Your task to perform on an android device: check android version Image 0: 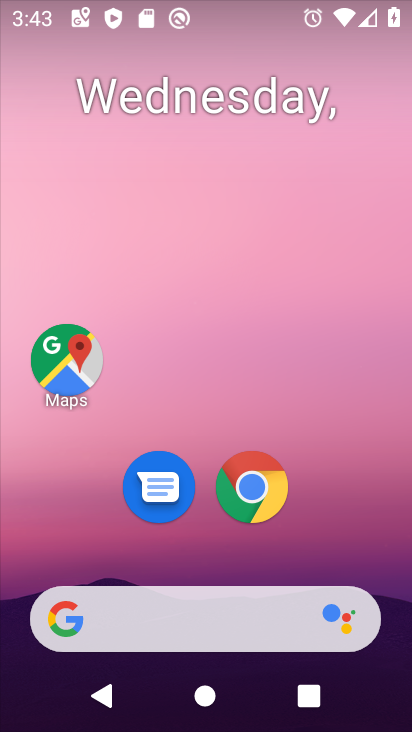
Step 0: drag from (377, 551) to (364, 180)
Your task to perform on an android device: check android version Image 1: 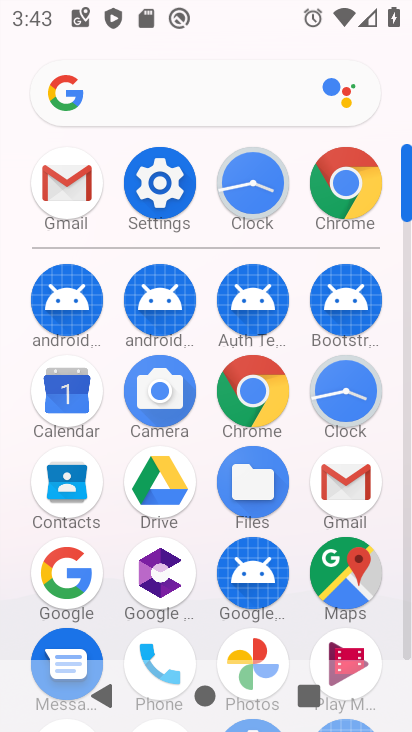
Step 1: click (165, 203)
Your task to perform on an android device: check android version Image 2: 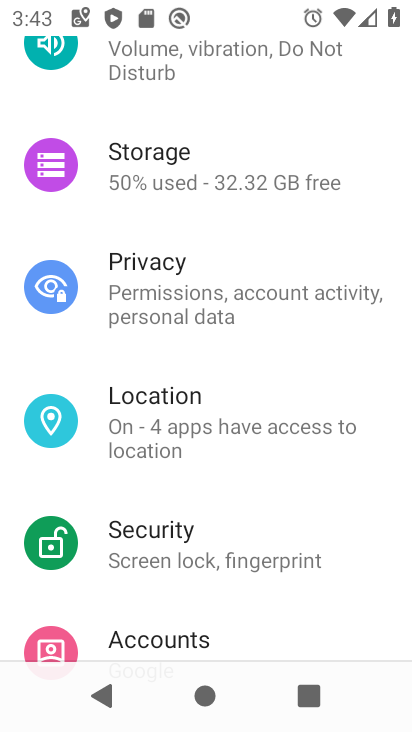
Step 2: drag from (356, 208) to (365, 280)
Your task to perform on an android device: check android version Image 3: 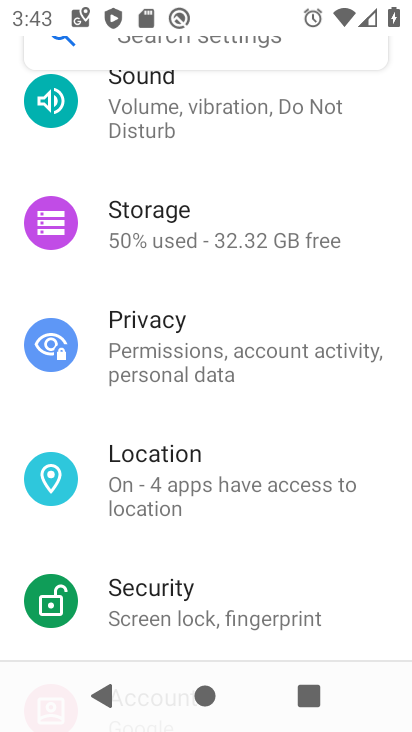
Step 3: drag from (363, 185) to (368, 284)
Your task to perform on an android device: check android version Image 4: 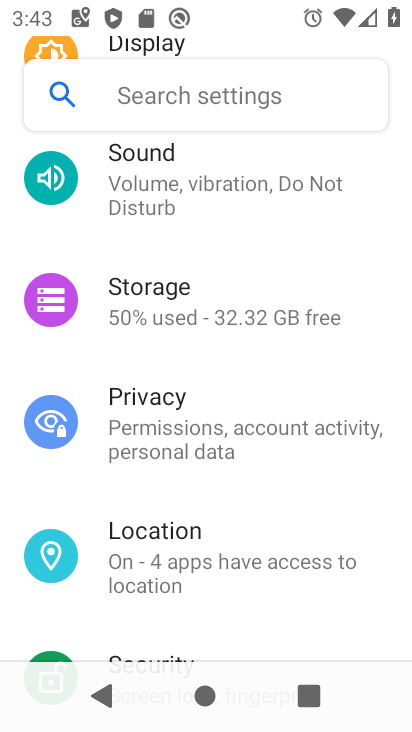
Step 4: drag from (372, 179) to (367, 268)
Your task to perform on an android device: check android version Image 5: 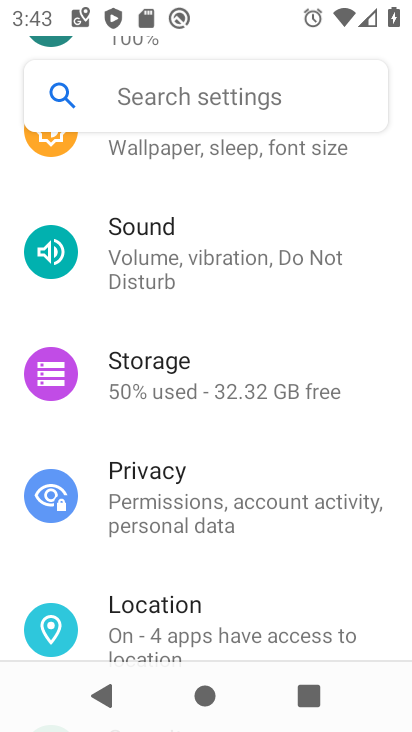
Step 5: drag from (375, 182) to (373, 300)
Your task to perform on an android device: check android version Image 6: 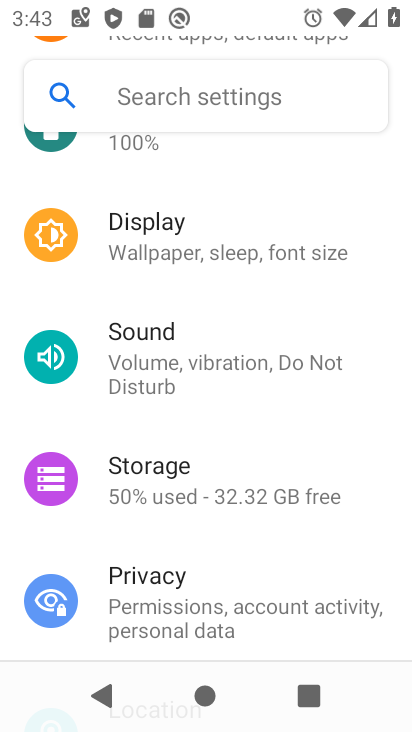
Step 6: drag from (363, 188) to (361, 301)
Your task to perform on an android device: check android version Image 7: 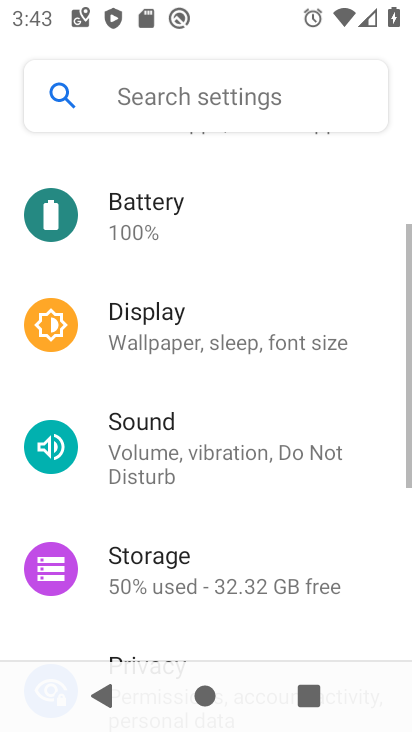
Step 7: drag from (349, 179) to (357, 311)
Your task to perform on an android device: check android version Image 8: 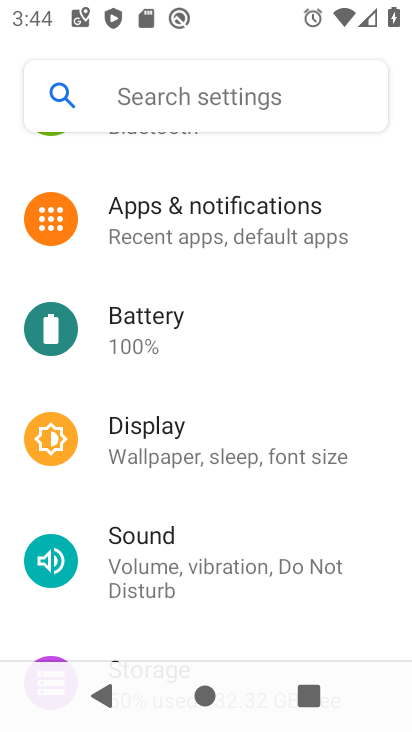
Step 8: drag from (357, 181) to (370, 325)
Your task to perform on an android device: check android version Image 9: 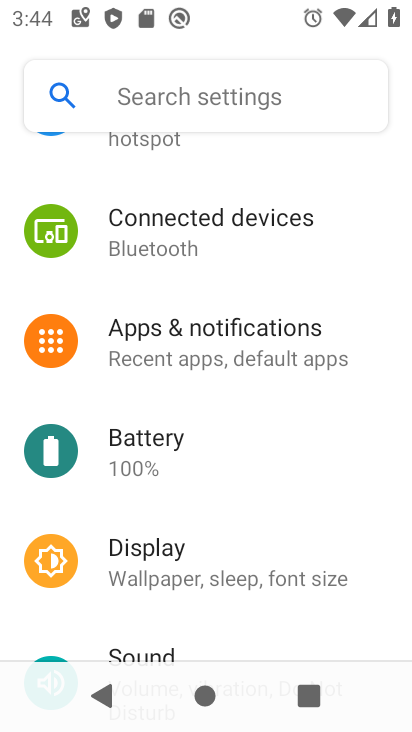
Step 9: drag from (348, 205) to (348, 316)
Your task to perform on an android device: check android version Image 10: 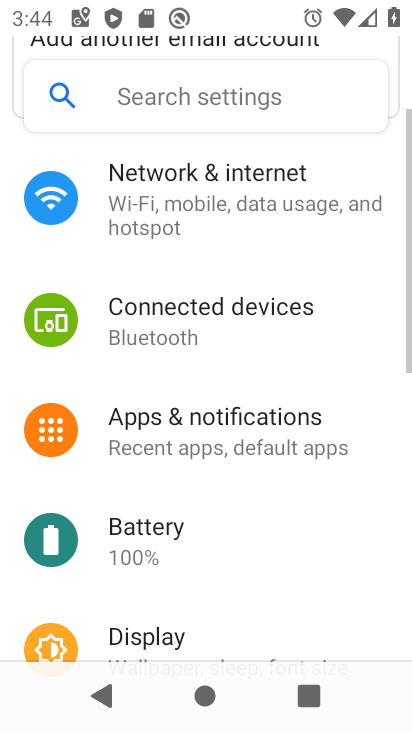
Step 10: drag from (347, 320) to (351, 184)
Your task to perform on an android device: check android version Image 11: 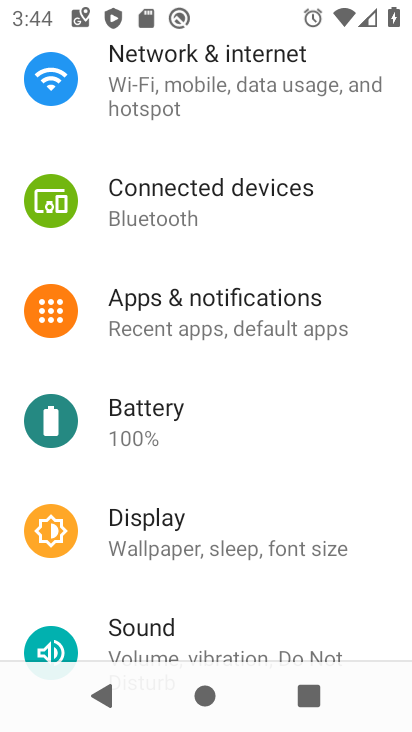
Step 11: drag from (352, 304) to (338, 168)
Your task to perform on an android device: check android version Image 12: 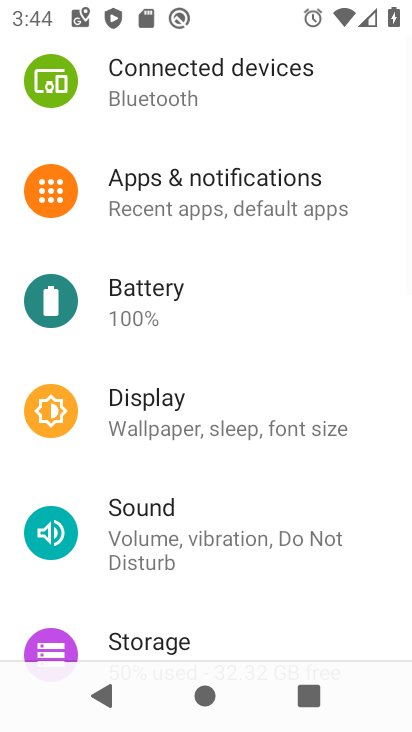
Step 12: drag from (329, 328) to (329, 238)
Your task to perform on an android device: check android version Image 13: 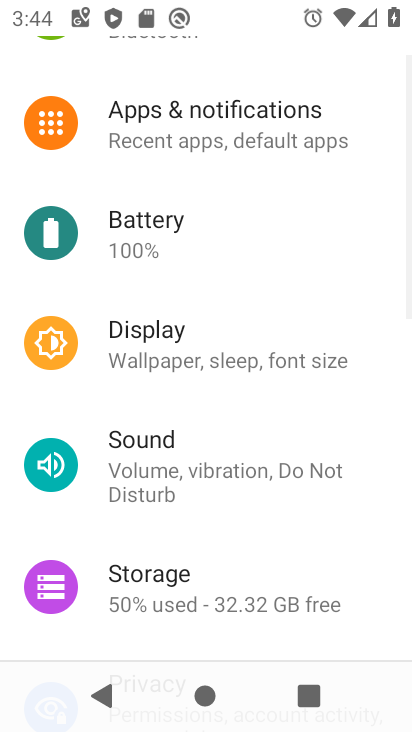
Step 13: drag from (359, 389) to (357, 276)
Your task to perform on an android device: check android version Image 14: 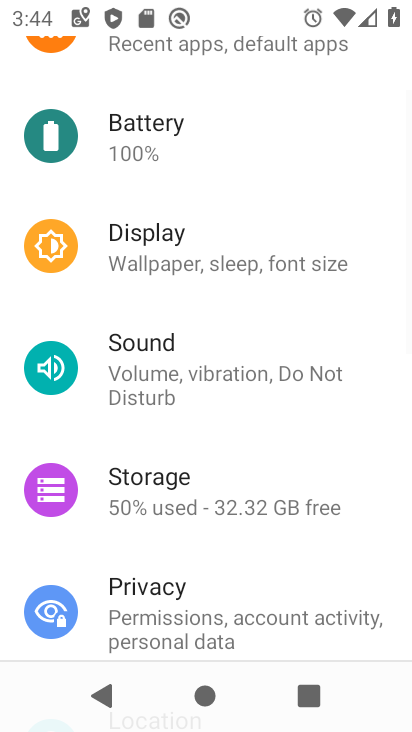
Step 14: drag from (363, 385) to (362, 271)
Your task to perform on an android device: check android version Image 15: 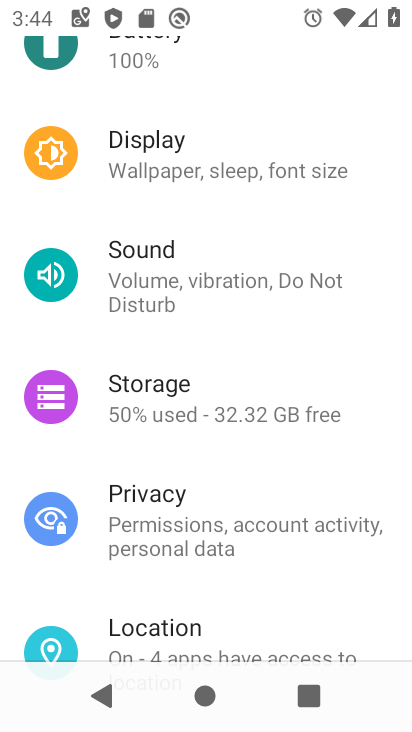
Step 15: drag from (353, 400) to (369, 274)
Your task to perform on an android device: check android version Image 16: 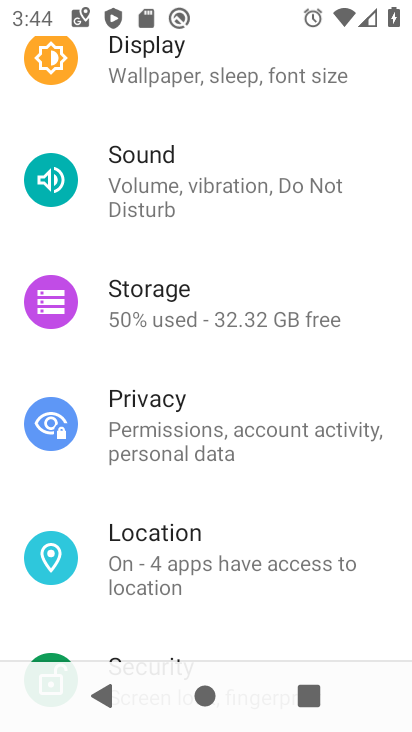
Step 16: drag from (349, 377) to (358, 288)
Your task to perform on an android device: check android version Image 17: 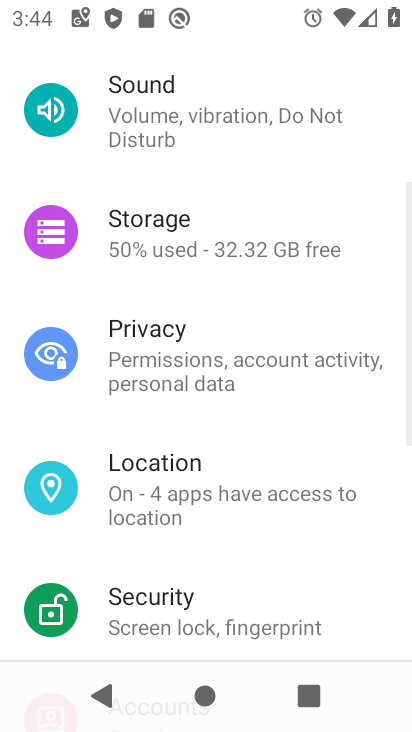
Step 17: drag from (362, 405) to (354, 262)
Your task to perform on an android device: check android version Image 18: 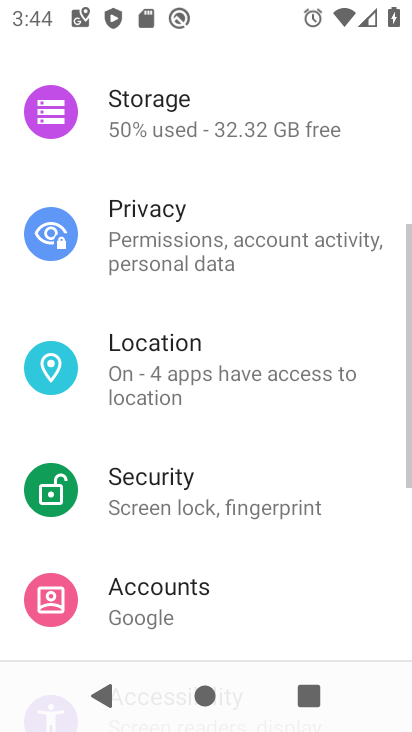
Step 18: drag from (334, 461) to (327, 364)
Your task to perform on an android device: check android version Image 19: 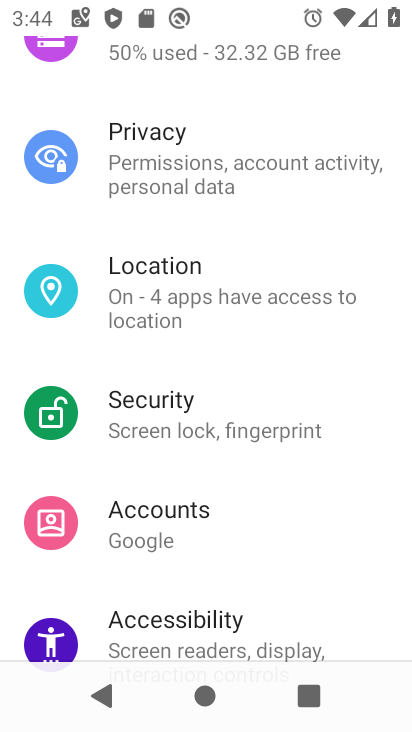
Step 19: drag from (336, 468) to (336, 340)
Your task to perform on an android device: check android version Image 20: 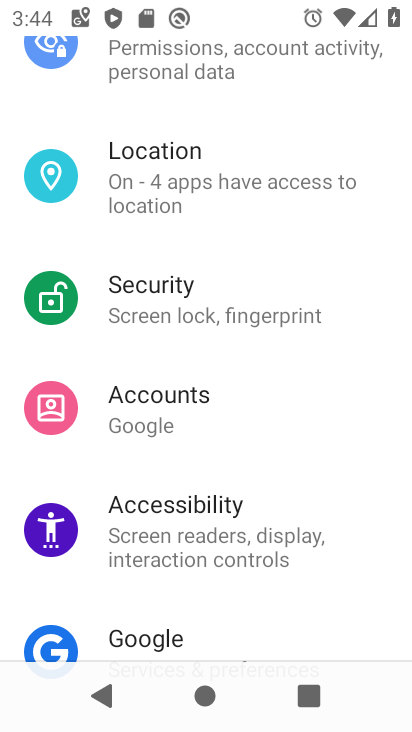
Step 20: drag from (318, 493) to (332, 382)
Your task to perform on an android device: check android version Image 21: 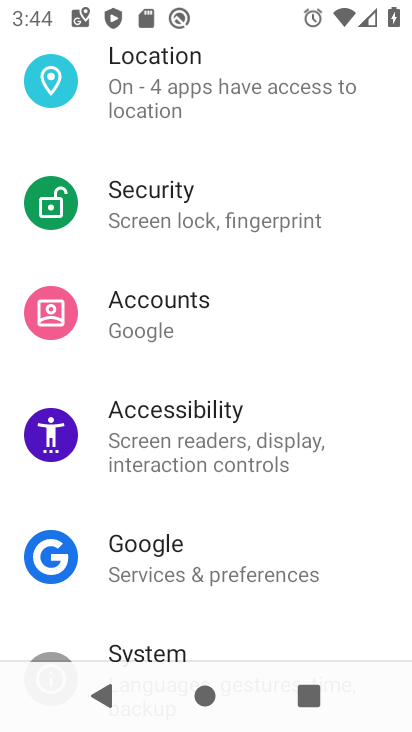
Step 21: drag from (344, 526) to (337, 253)
Your task to perform on an android device: check android version Image 22: 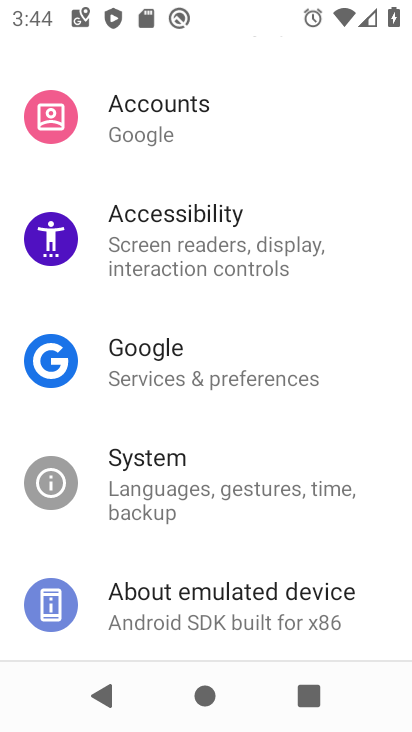
Step 22: click (215, 497)
Your task to perform on an android device: check android version Image 23: 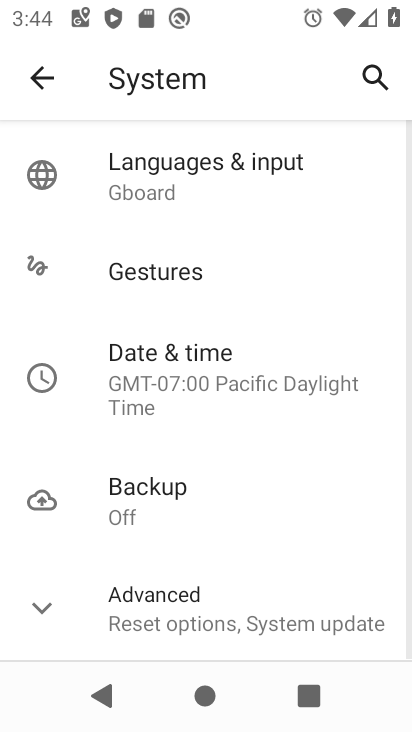
Step 23: click (185, 609)
Your task to perform on an android device: check android version Image 24: 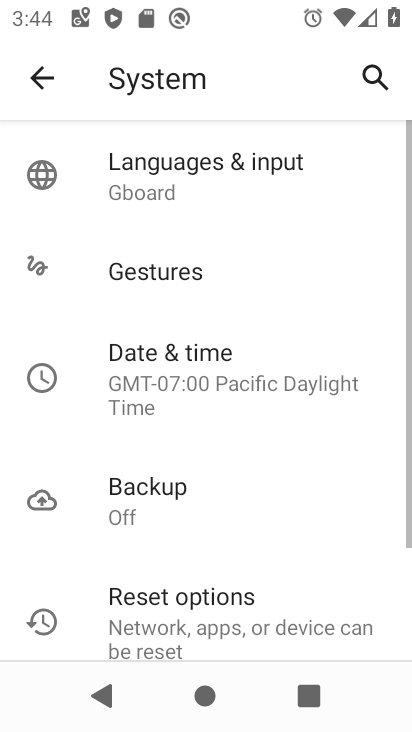
Step 24: drag from (310, 534) to (316, 299)
Your task to perform on an android device: check android version Image 25: 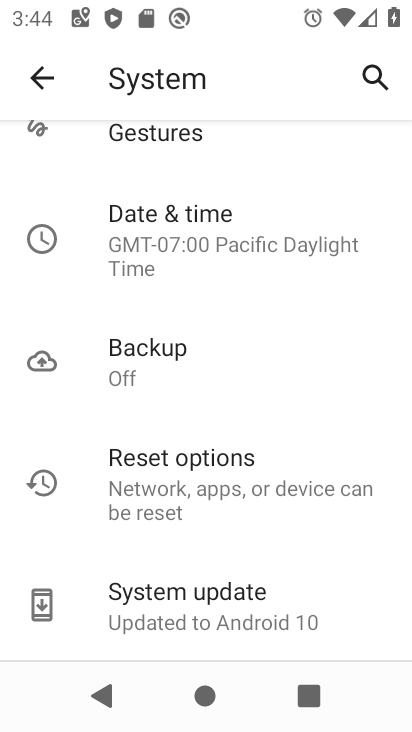
Step 25: click (248, 619)
Your task to perform on an android device: check android version Image 26: 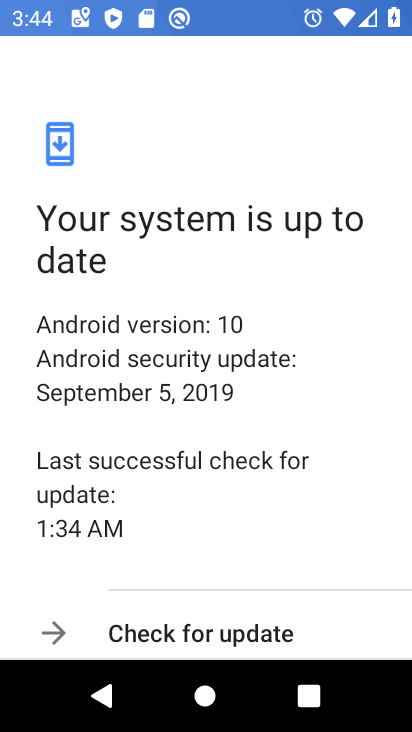
Step 26: task complete